Your task to perform on an android device: manage bookmarks in the chrome app Image 0: 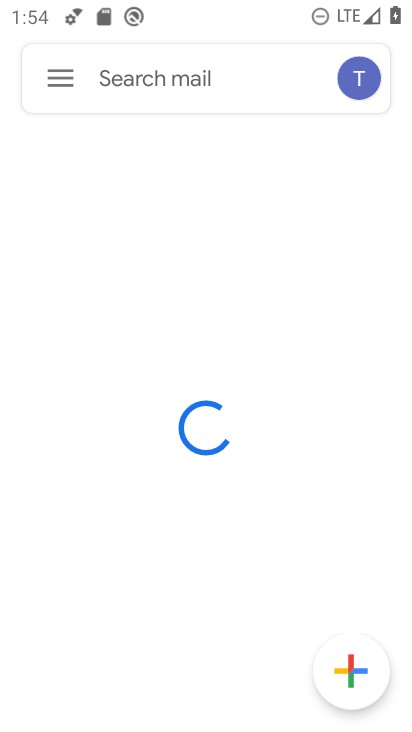
Step 0: press home button
Your task to perform on an android device: manage bookmarks in the chrome app Image 1: 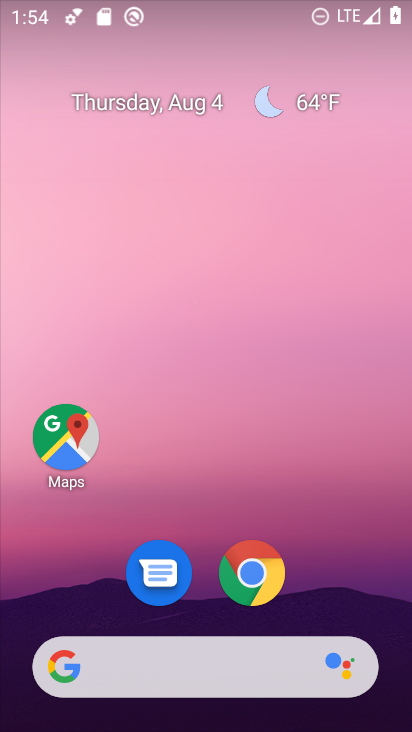
Step 1: drag from (332, 516) to (234, 71)
Your task to perform on an android device: manage bookmarks in the chrome app Image 2: 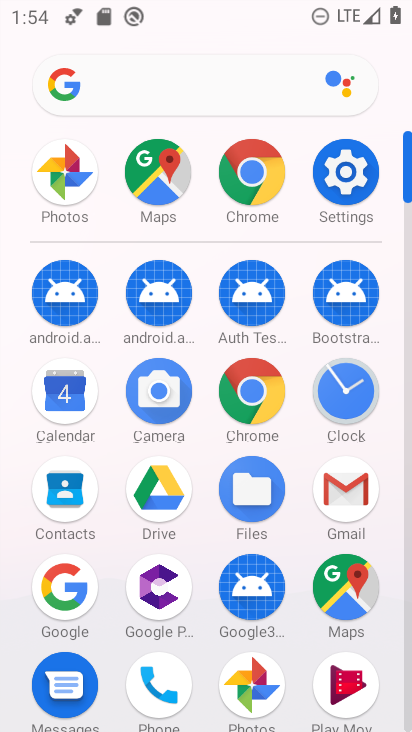
Step 2: click (253, 387)
Your task to perform on an android device: manage bookmarks in the chrome app Image 3: 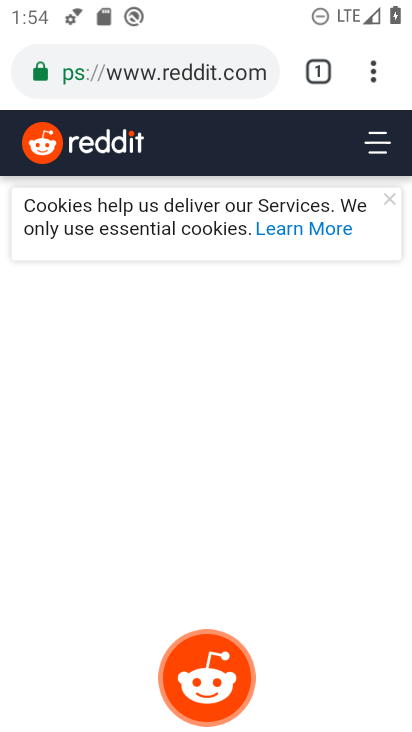
Step 3: drag from (381, 69) to (123, 284)
Your task to perform on an android device: manage bookmarks in the chrome app Image 4: 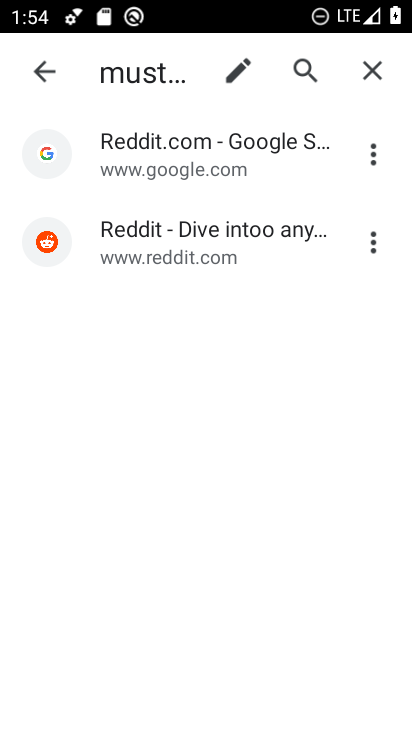
Step 4: click (368, 249)
Your task to perform on an android device: manage bookmarks in the chrome app Image 5: 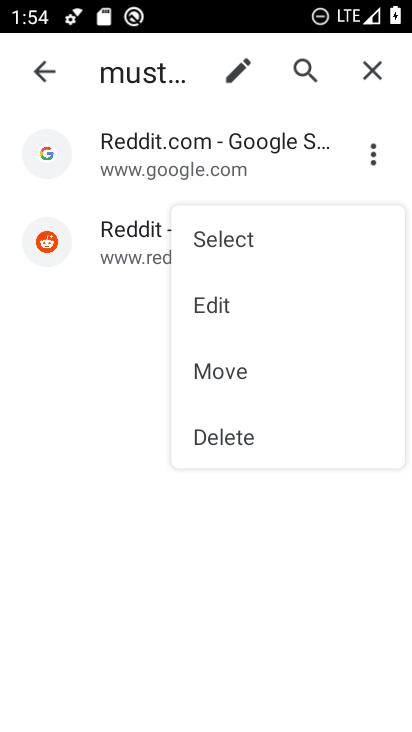
Step 5: click (252, 311)
Your task to perform on an android device: manage bookmarks in the chrome app Image 6: 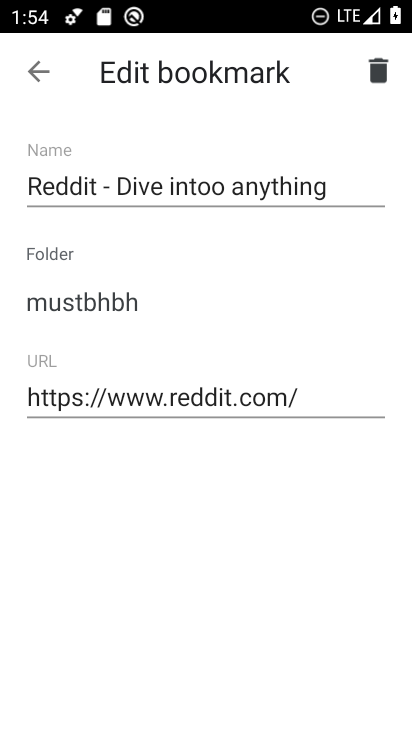
Step 6: drag from (338, 183) to (113, 183)
Your task to perform on an android device: manage bookmarks in the chrome app Image 7: 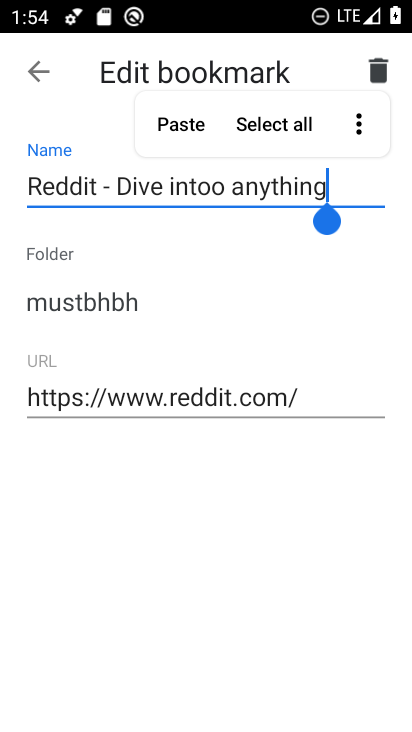
Step 7: press back button
Your task to perform on an android device: manage bookmarks in the chrome app Image 8: 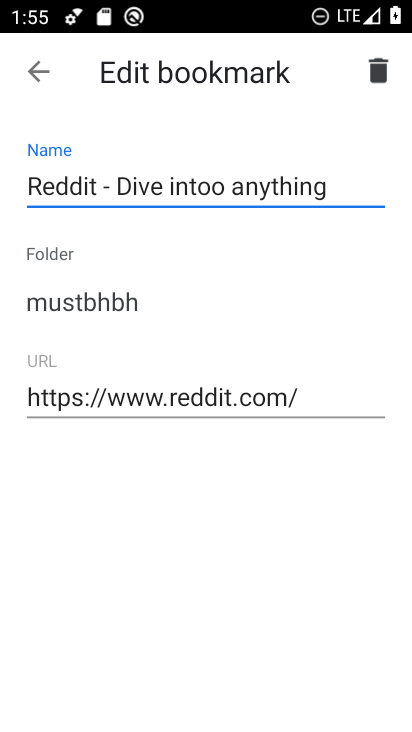
Step 8: type " m"
Your task to perform on an android device: manage bookmarks in the chrome app Image 9: 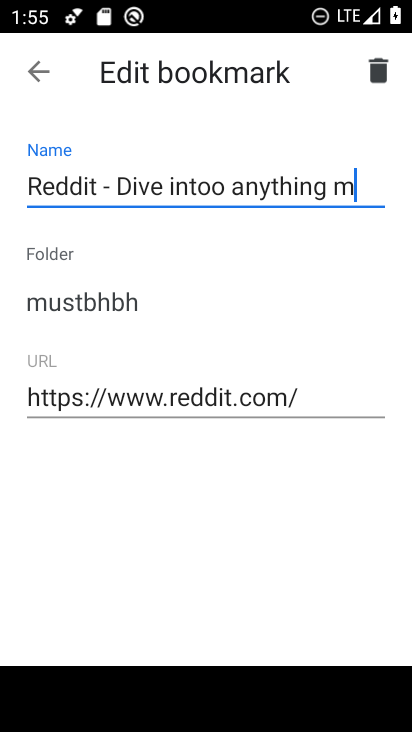
Step 9: type ""
Your task to perform on an android device: manage bookmarks in the chrome app Image 10: 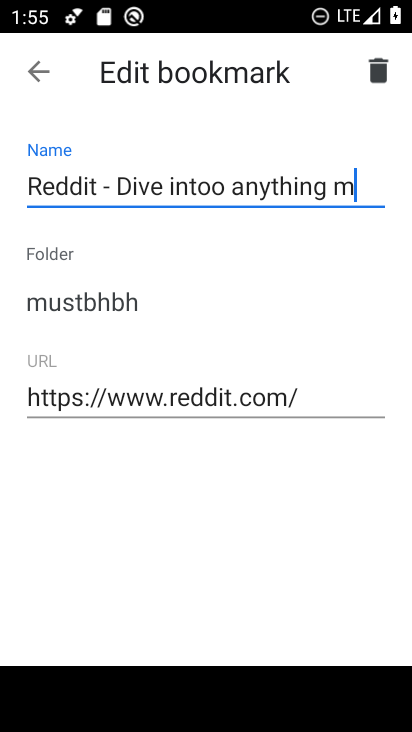
Step 10: click (30, 72)
Your task to perform on an android device: manage bookmarks in the chrome app Image 11: 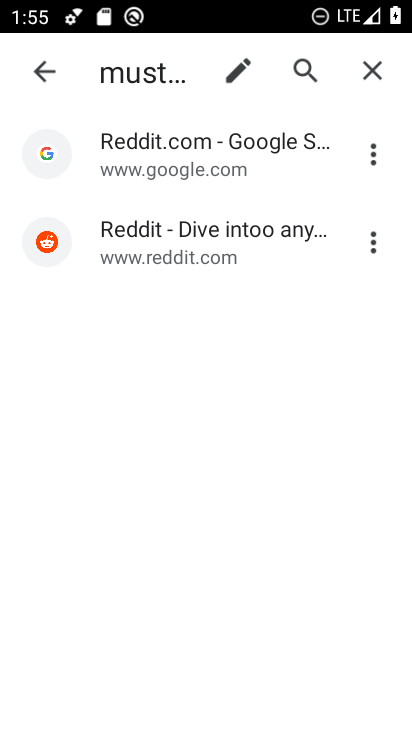
Step 11: task complete